Your task to perform on an android device: Go to CNN.com Image 0: 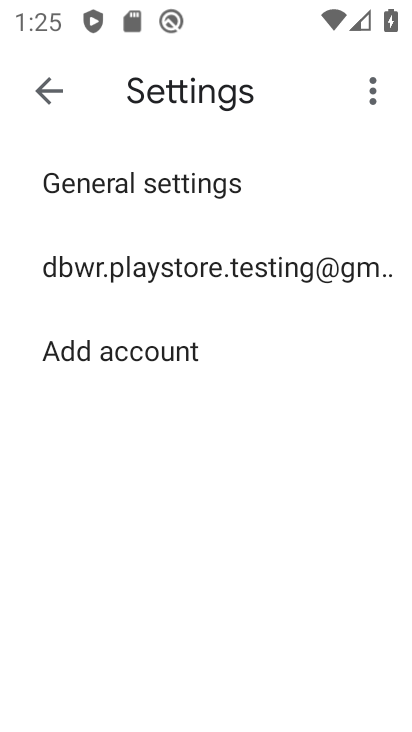
Step 0: press back button
Your task to perform on an android device: Go to CNN.com Image 1: 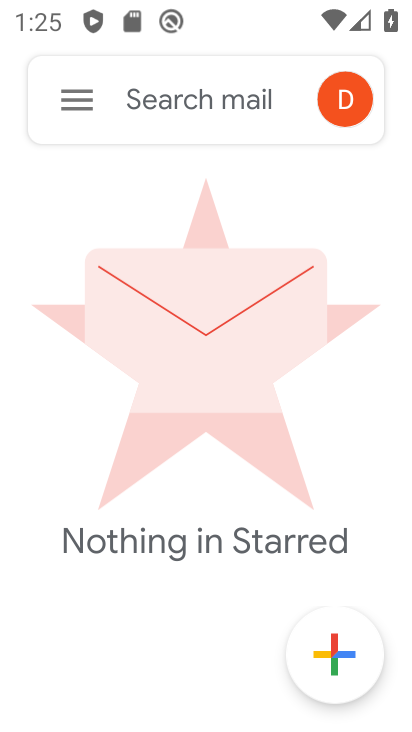
Step 1: press back button
Your task to perform on an android device: Go to CNN.com Image 2: 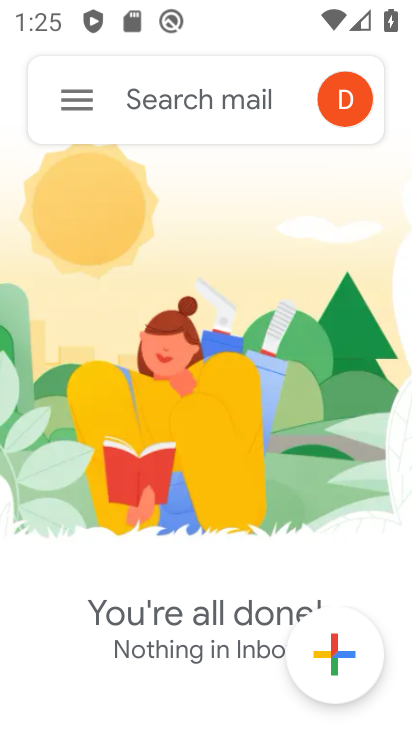
Step 2: press back button
Your task to perform on an android device: Go to CNN.com Image 3: 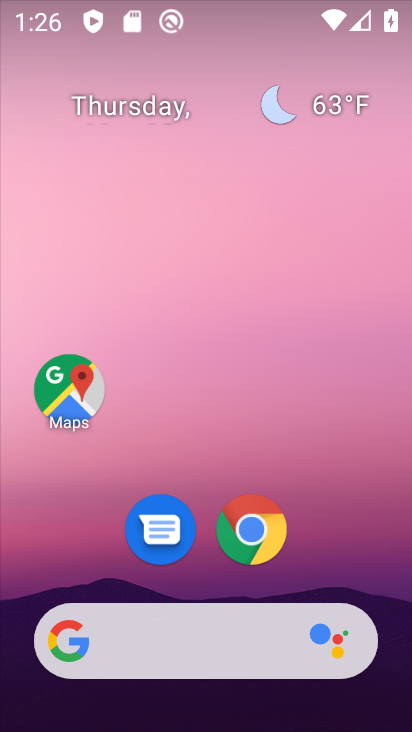
Step 3: click (249, 531)
Your task to perform on an android device: Go to CNN.com Image 4: 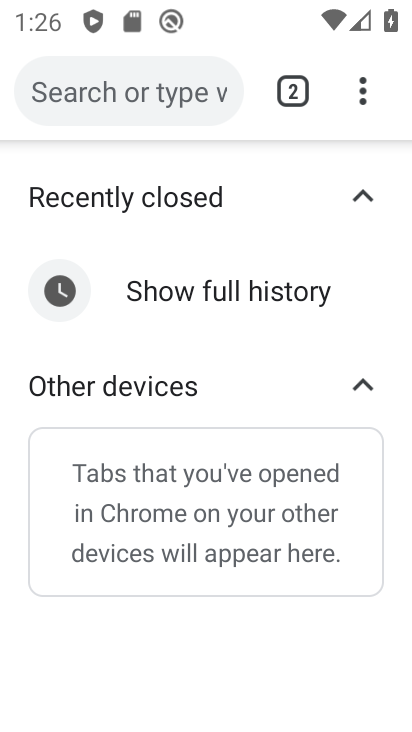
Step 4: click (145, 94)
Your task to perform on an android device: Go to CNN.com Image 5: 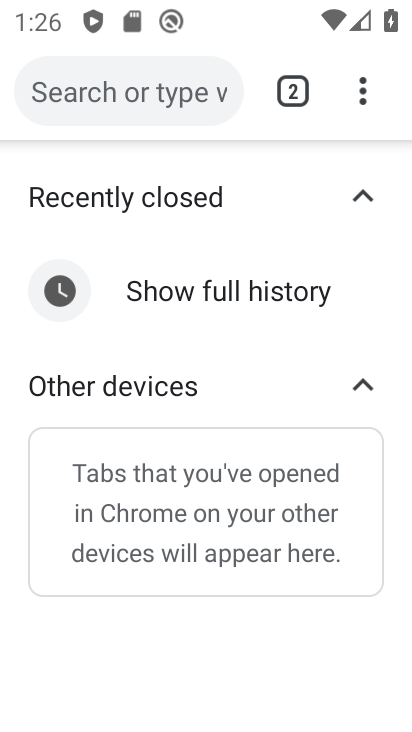
Step 5: click (129, 103)
Your task to perform on an android device: Go to CNN.com Image 6: 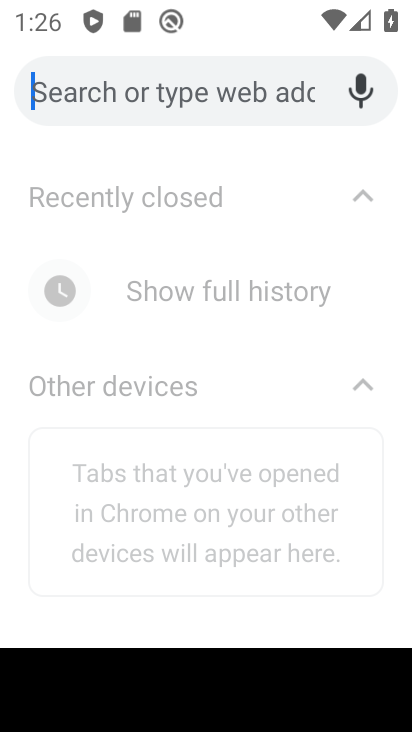
Step 6: type "CNN.com"
Your task to perform on an android device: Go to CNN.com Image 7: 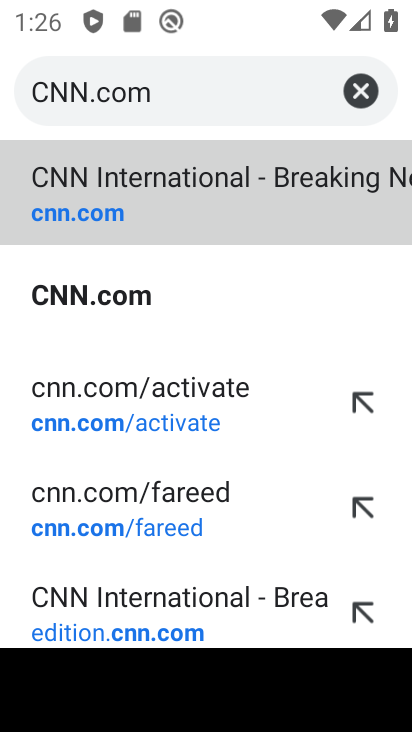
Step 7: click (100, 294)
Your task to perform on an android device: Go to CNN.com Image 8: 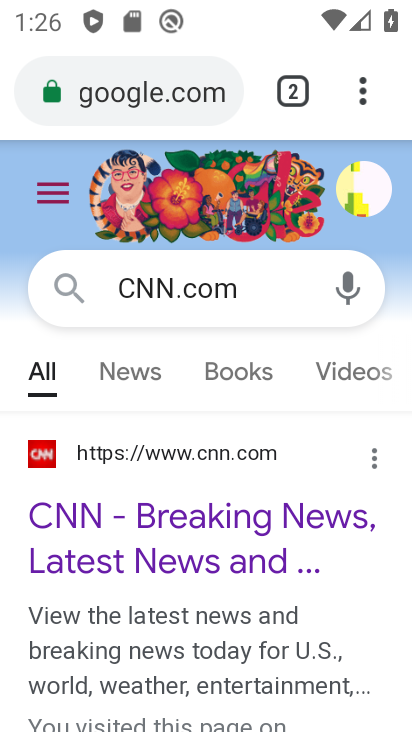
Step 8: click (159, 536)
Your task to perform on an android device: Go to CNN.com Image 9: 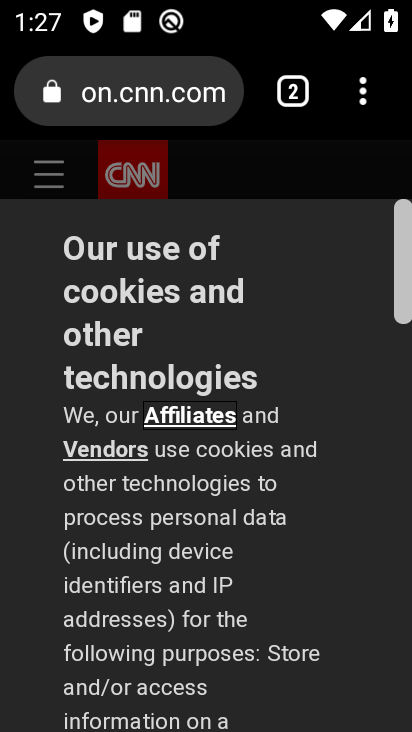
Step 9: task complete